Your task to perform on an android device: Open Google Image 0: 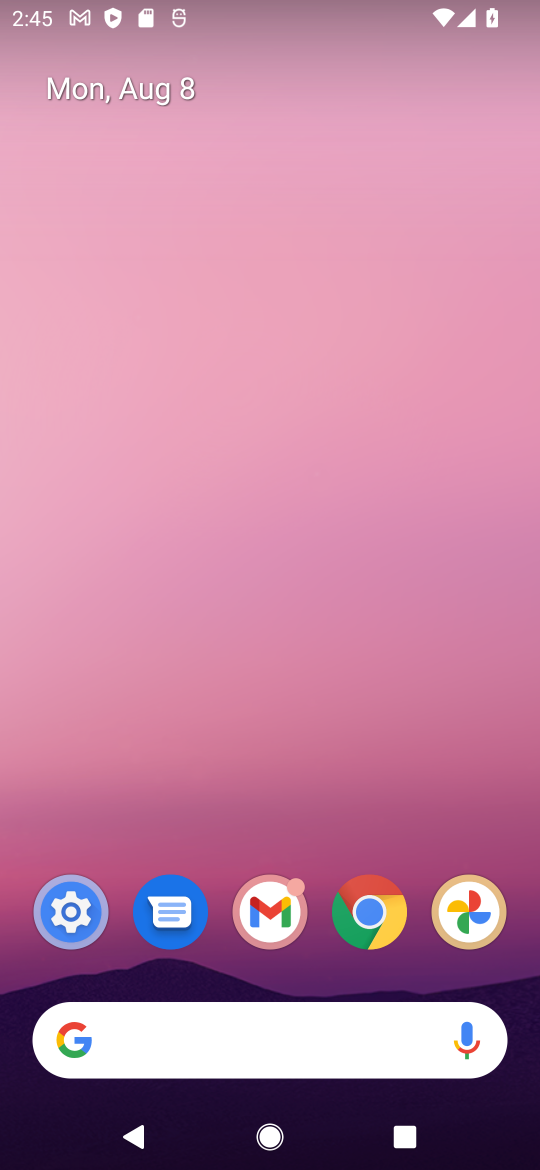
Step 0: drag from (37, 999) to (363, 120)
Your task to perform on an android device: Open Google Image 1: 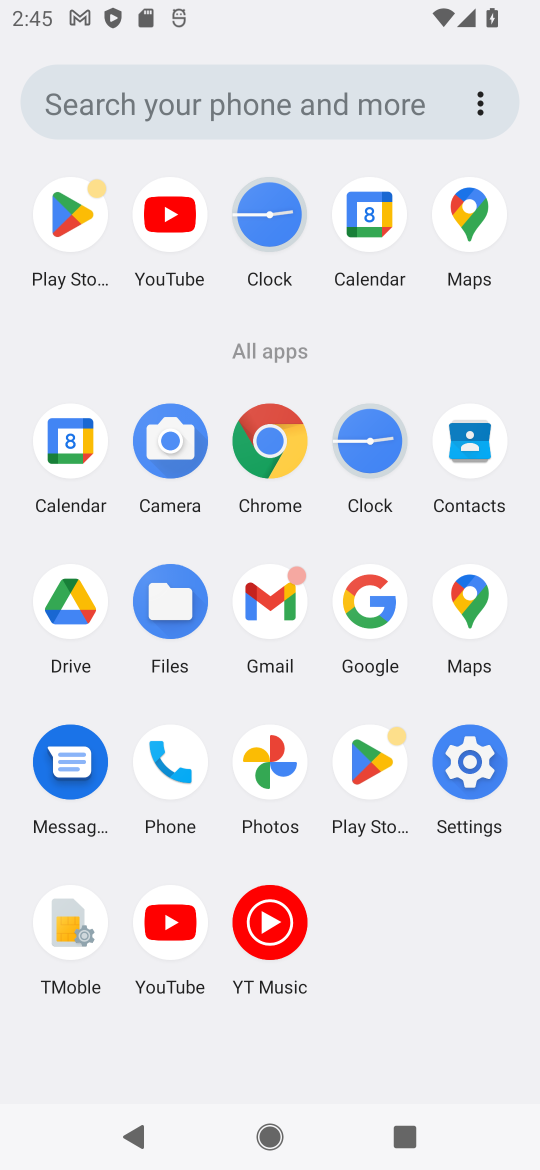
Step 1: click (385, 592)
Your task to perform on an android device: Open Google Image 2: 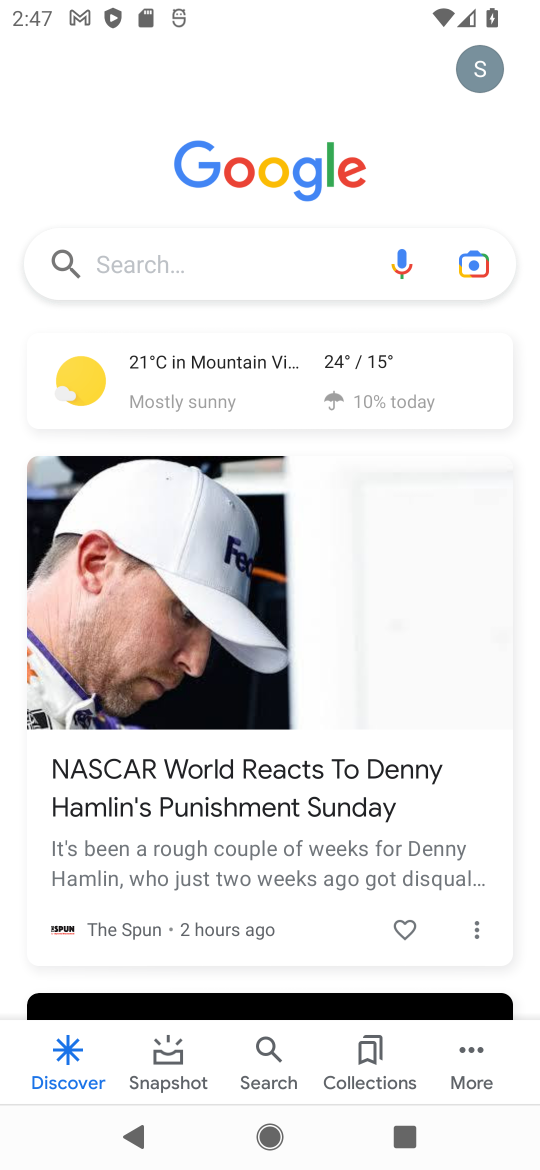
Step 2: task complete